Your task to perform on an android device: change keyboard looks Image 0: 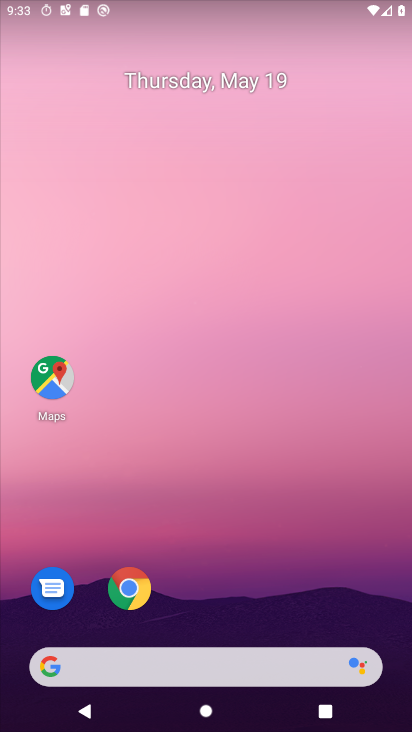
Step 0: press home button
Your task to perform on an android device: change keyboard looks Image 1: 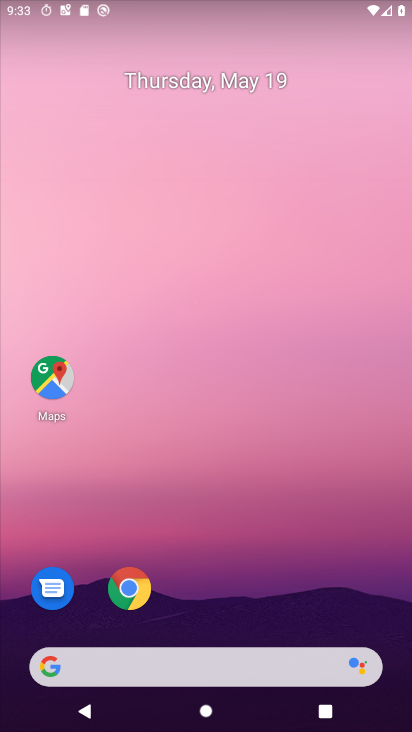
Step 1: drag from (204, 671) to (284, 197)
Your task to perform on an android device: change keyboard looks Image 2: 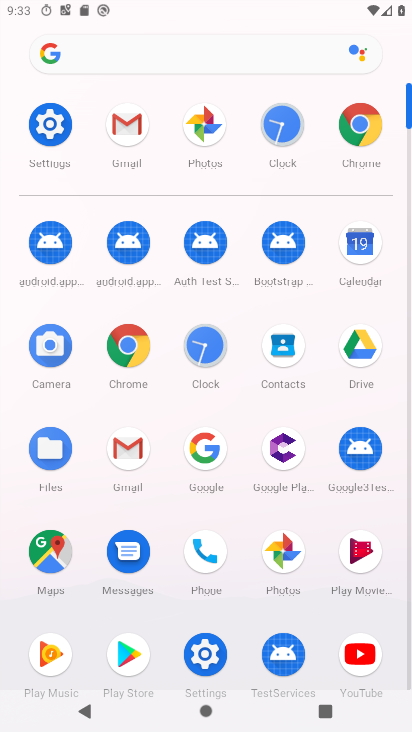
Step 2: click (53, 131)
Your task to perform on an android device: change keyboard looks Image 3: 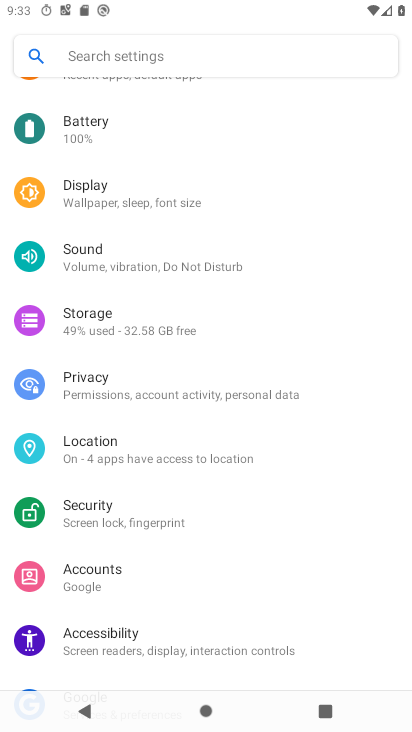
Step 3: drag from (230, 601) to (327, 183)
Your task to perform on an android device: change keyboard looks Image 4: 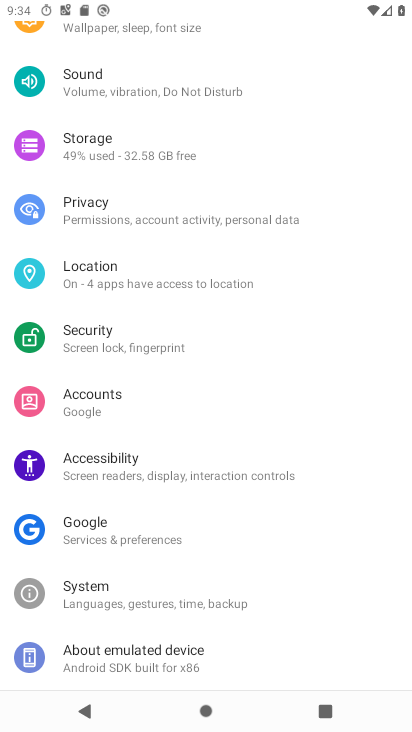
Step 4: click (108, 595)
Your task to perform on an android device: change keyboard looks Image 5: 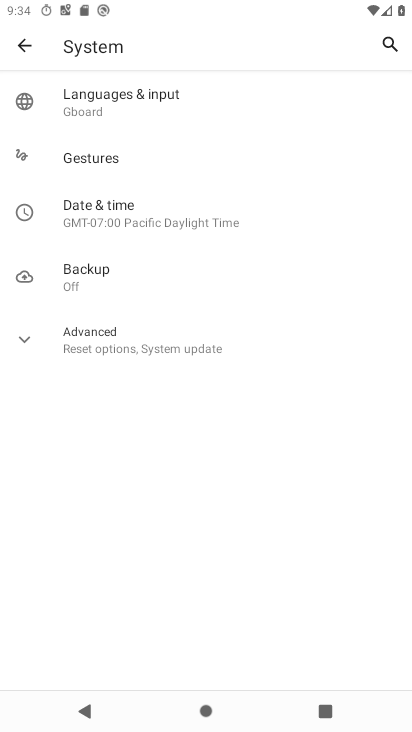
Step 5: click (132, 97)
Your task to perform on an android device: change keyboard looks Image 6: 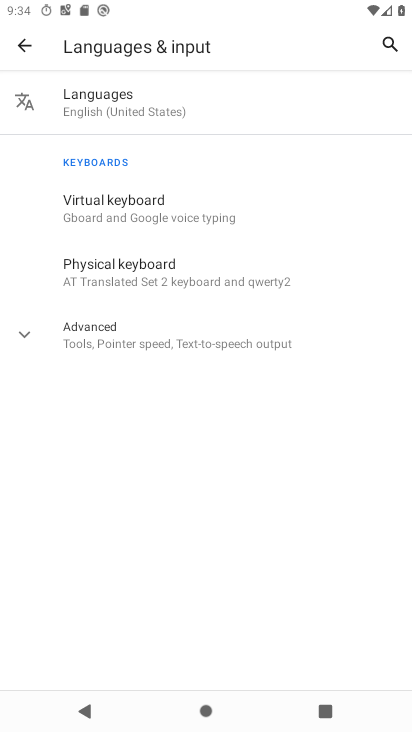
Step 6: click (135, 215)
Your task to perform on an android device: change keyboard looks Image 7: 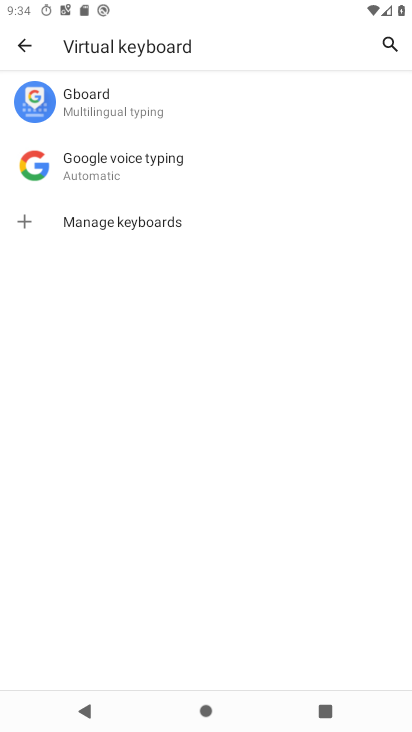
Step 7: click (123, 108)
Your task to perform on an android device: change keyboard looks Image 8: 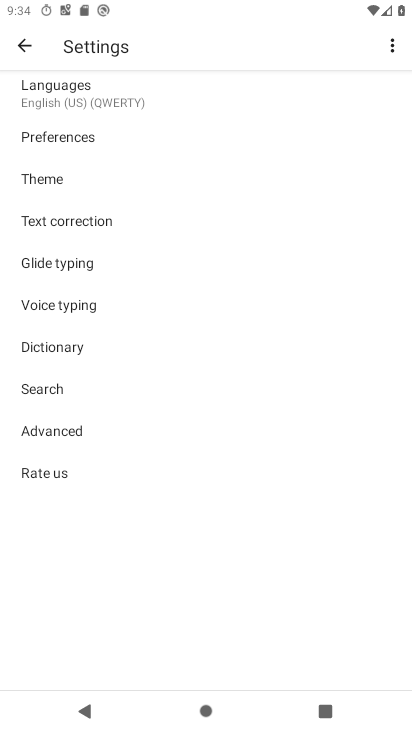
Step 8: click (47, 171)
Your task to perform on an android device: change keyboard looks Image 9: 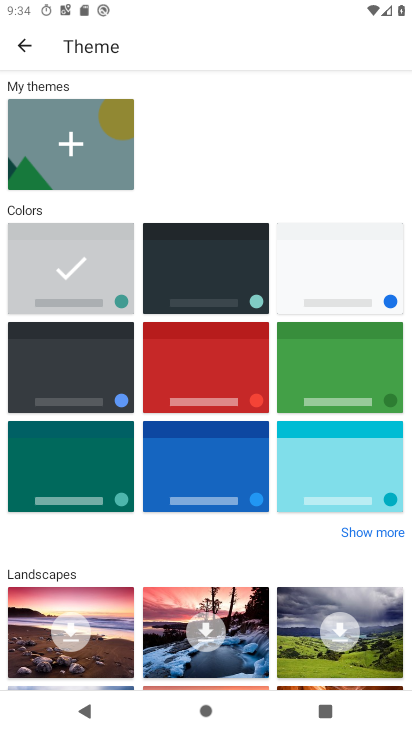
Step 9: click (221, 472)
Your task to perform on an android device: change keyboard looks Image 10: 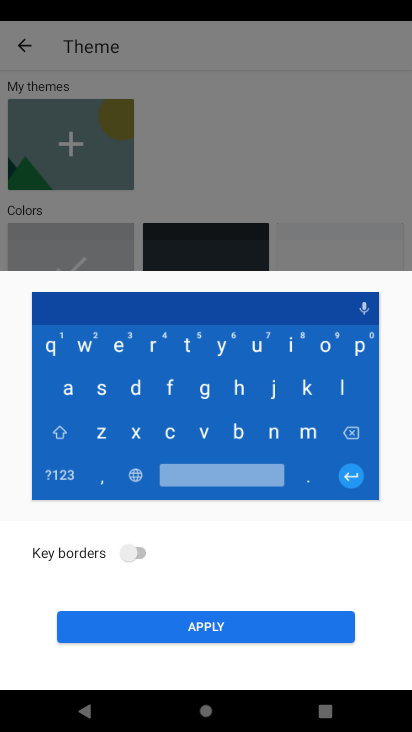
Step 10: click (229, 626)
Your task to perform on an android device: change keyboard looks Image 11: 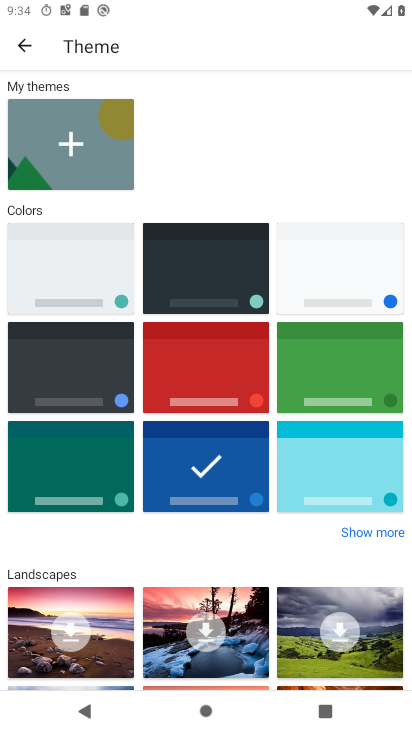
Step 11: task complete